Your task to perform on an android device: change timer sound Image 0: 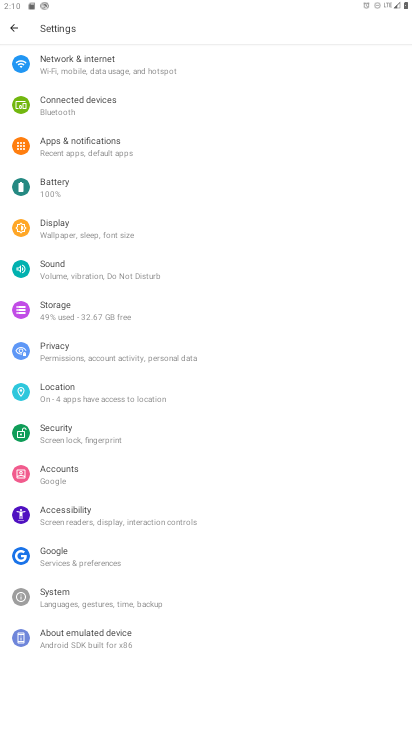
Step 0: press home button
Your task to perform on an android device: change timer sound Image 1: 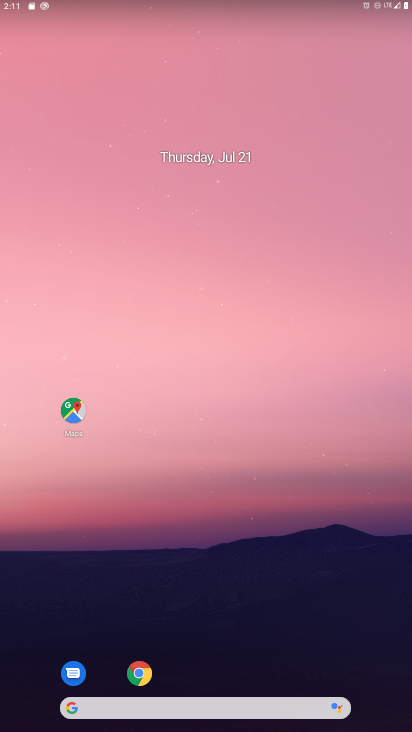
Step 1: drag from (177, 666) to (176, 213)
Your task to perform on an android device: change timer sound Image 2: 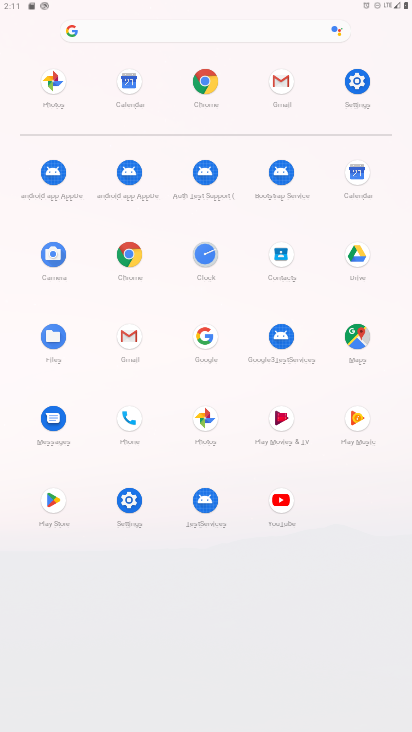
Step 2: click (206, 253)
Your task to perform on an android device: change timer sound Image 3: 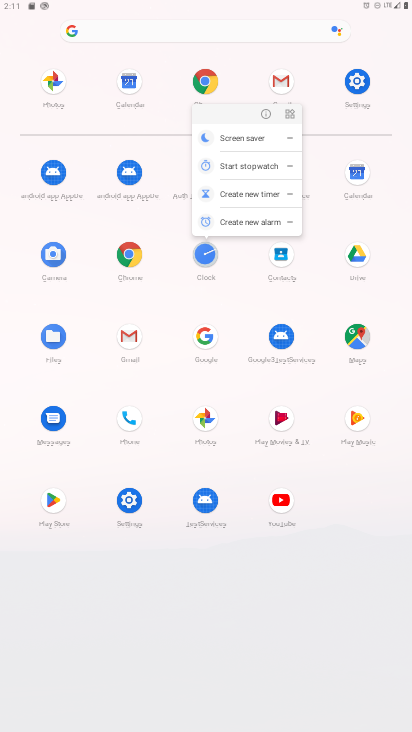
Step 3: click (202, 251)
Your task to perform on an android device: change timer sound Image 4: 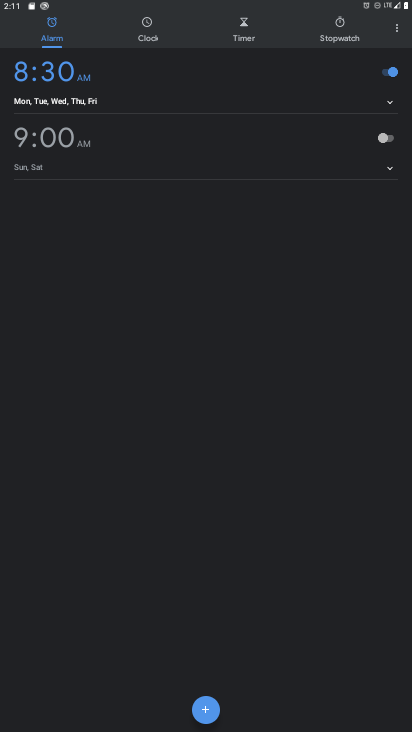
Step 4: click (407, 27)
Your task to perform on an android device: change timer sound Image 5: 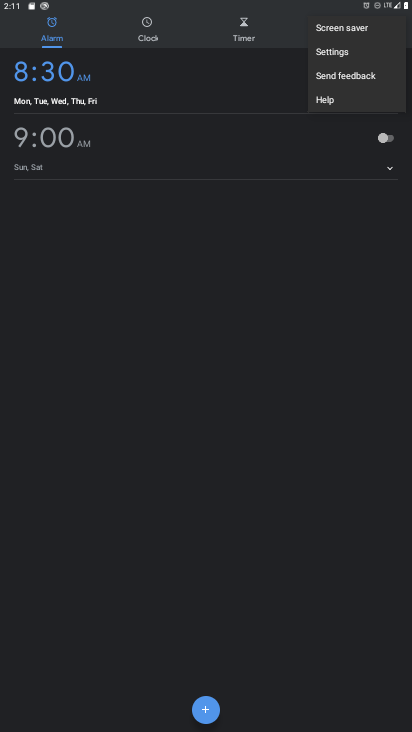
Step 5: click (347, 53)
Your task to perform on an android device: change timer sound Image 6: 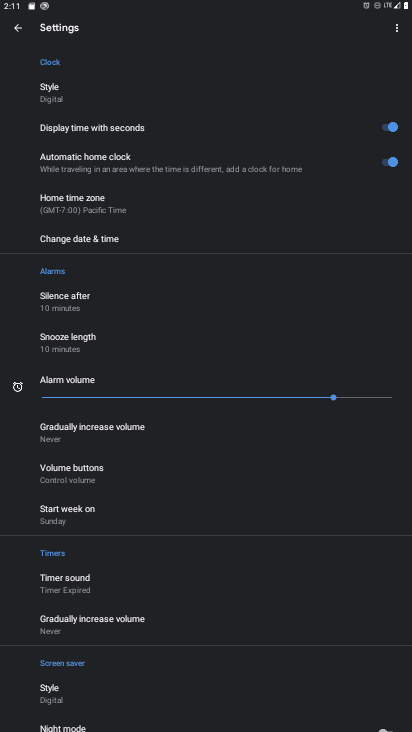
Step 6: click (91, 573)
Your task to perform on an android device: change timer sound Image 7: 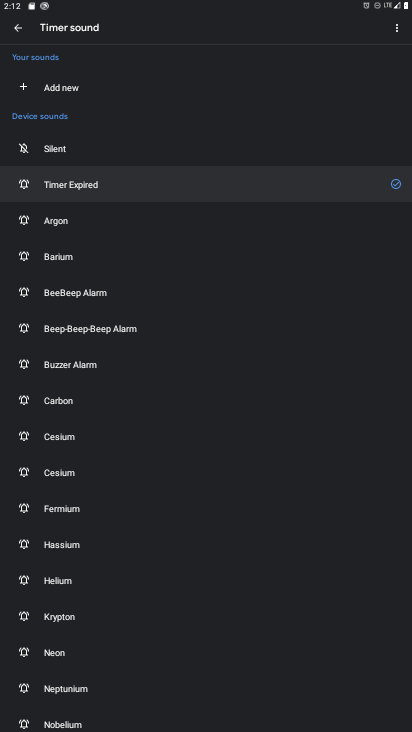
Step 7: click (58, 440)
Your task to perform on an android device: change timer sound Image 8: 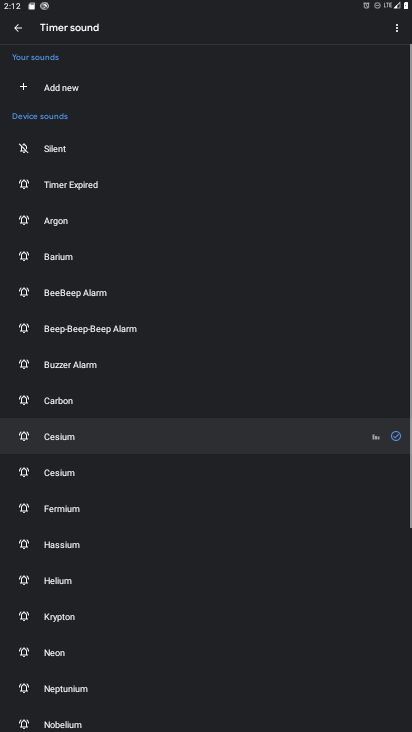
Step 8: task complete